Your task to perform on an android device: set an alarm Image 0: 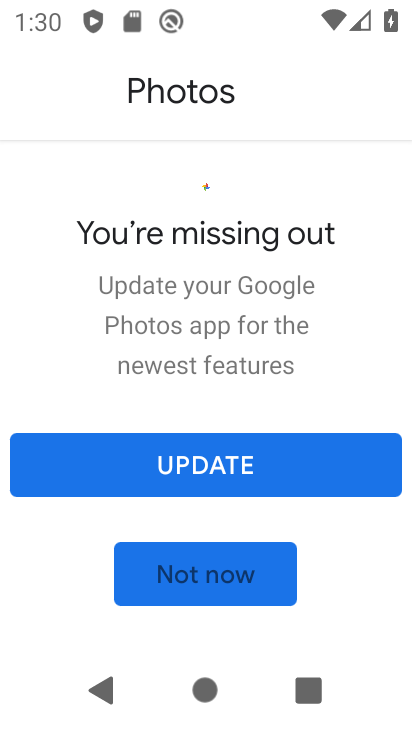
Step 0: press home button
Your task to perform on an android device: set an alarm Image 1: 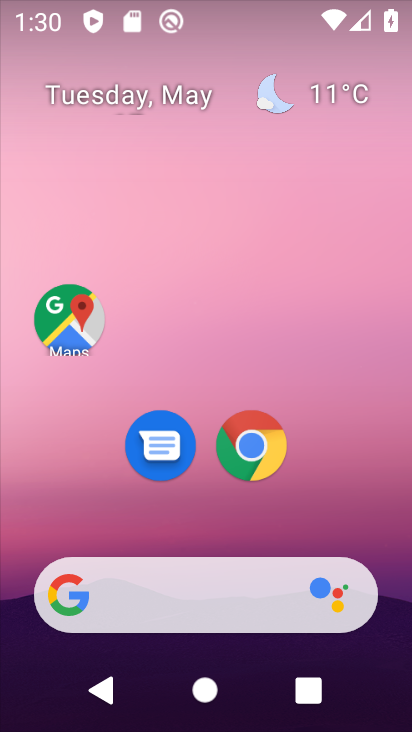
Step 1: drag from (344, 509) to (273, 147)
Your task to perform on an android device: set an alarm Image 2: 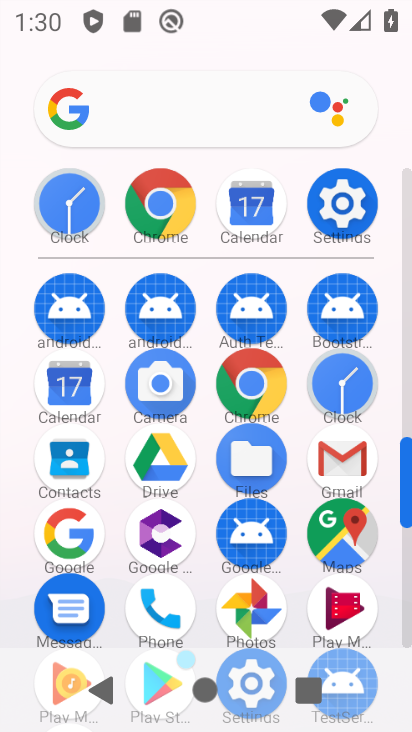
Step 2: click (81, 213)
Your task to perform on an android device: set an alarm Image 3: 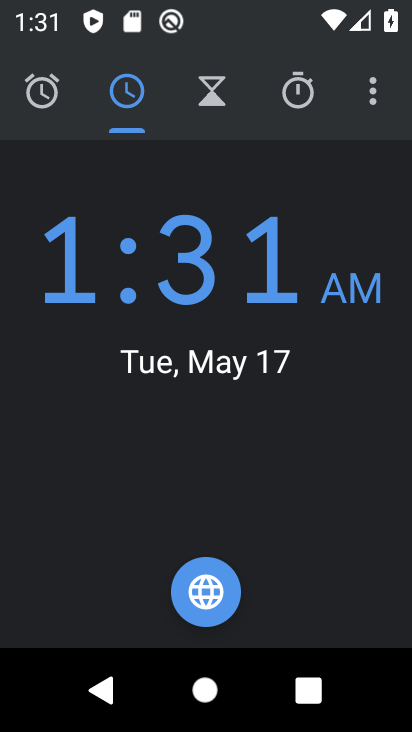
Step 3: click (44, 103)
Your task to perform on an android device: set an alarm Image 4: 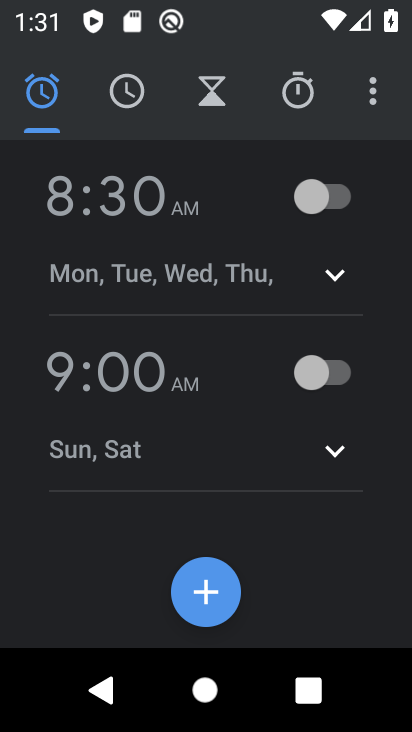
Step 4: click (224, 606)
Your task to perform on an android device: set an alarm Image 5: 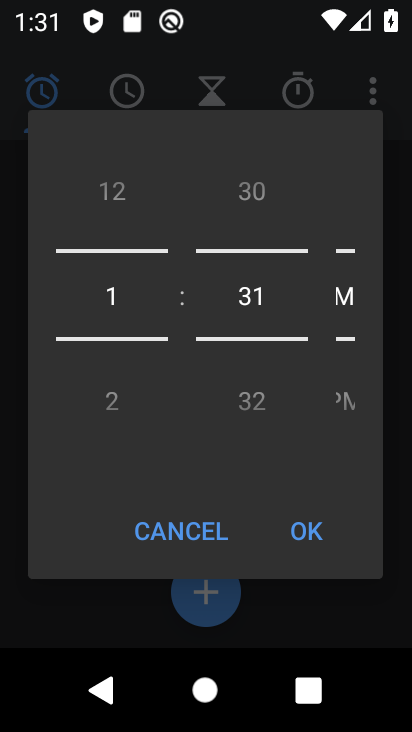
Step 5: click (310, 532)
Your task to perform on an android device: set an alarm Image 6: 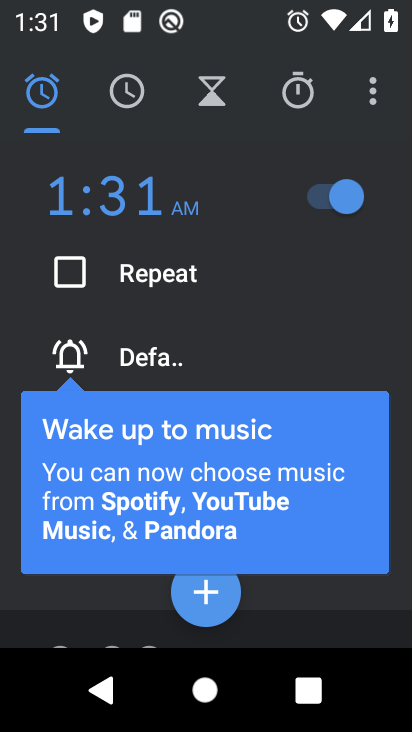
Step 6: task complete